Your task to perform on an android device: Open Google Chrome and click the shortcut for Amazon.com Image 0: 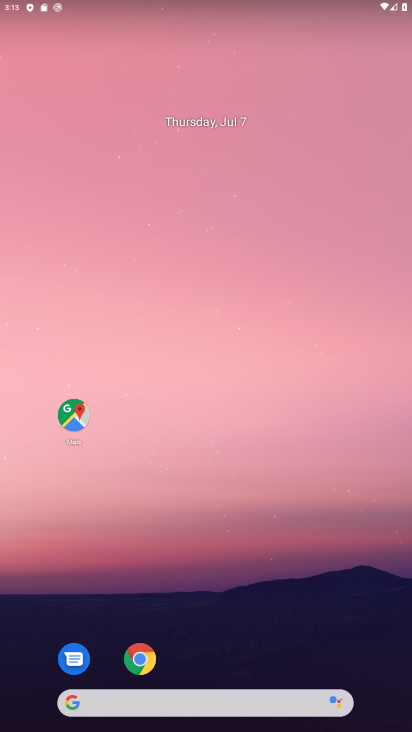
Step 0: drag from (246, 626) to (140, 179)
Your task to perform on an android device: Open Google Chrome and click the shortcut for Amazon.com Image 1: 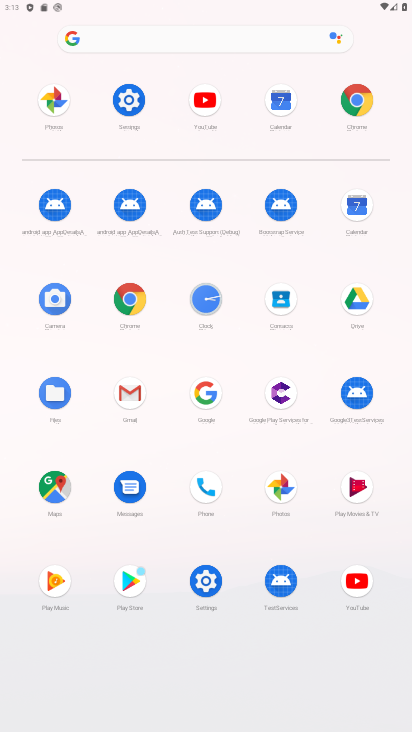
Step 1: click (356, 106)
Your task to perform on an android device: Open Google Chrome and click the shortcut for Amazon.com Image 2: 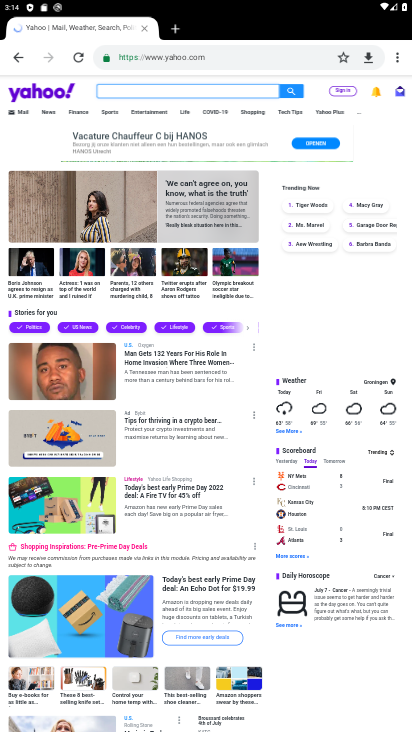
Step 2: click (177, 31)
Your task to perform on an android device: Open Google Chrome and click the shortcut for Amazon.com Image 3: 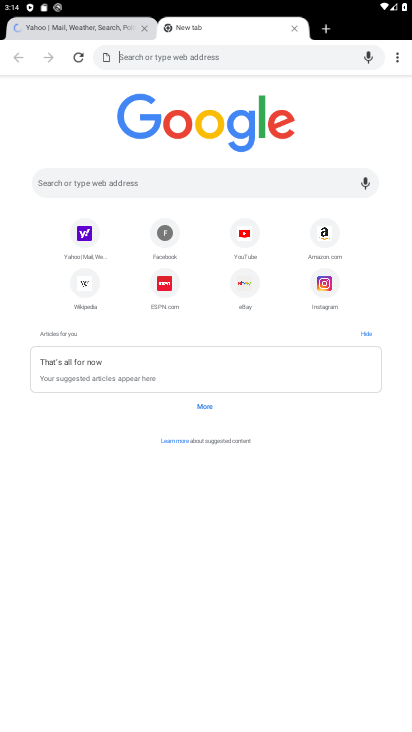
Step 3: click (334, 241)
Your task to perform on an android device: Open Google Chrome and click the shortcut for Amazon.com Image 4: 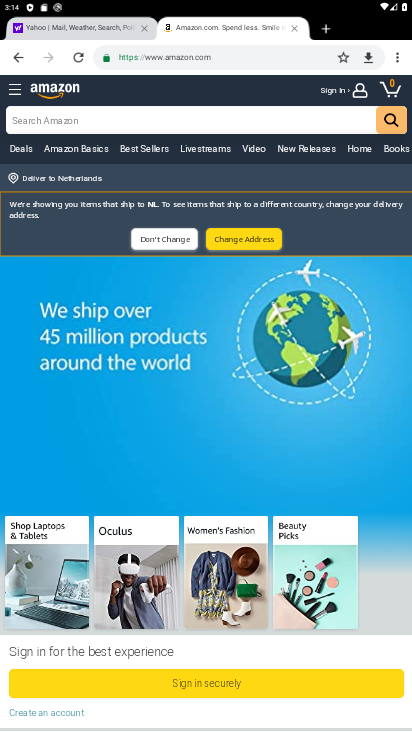
Step 4: task complete